Your task to perform on an android device: Open the map Image 0: 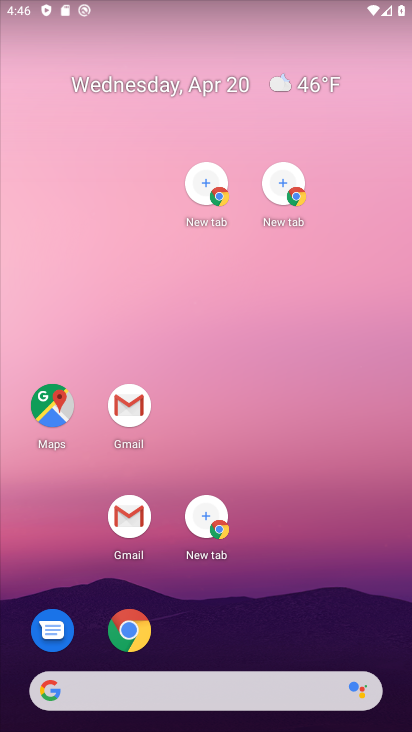
Step 0: drag from (216, 259) to (186, 176)
Your task to perform on an android device: Open the map Image 1: 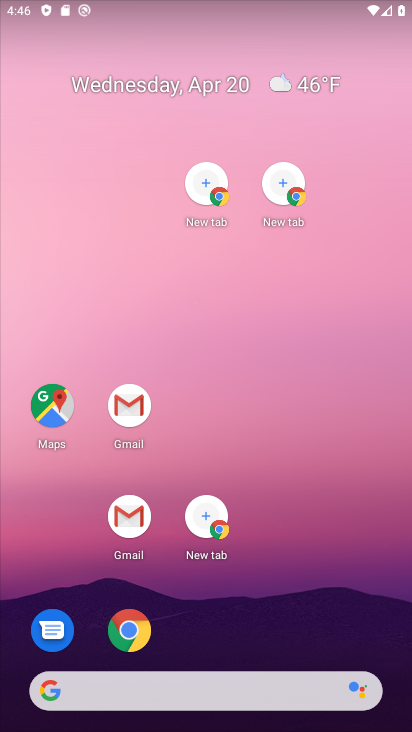
Step 1: drag from (298, 627) to (111, 54)
Your task to perform on an android device: Open the map Image 2: 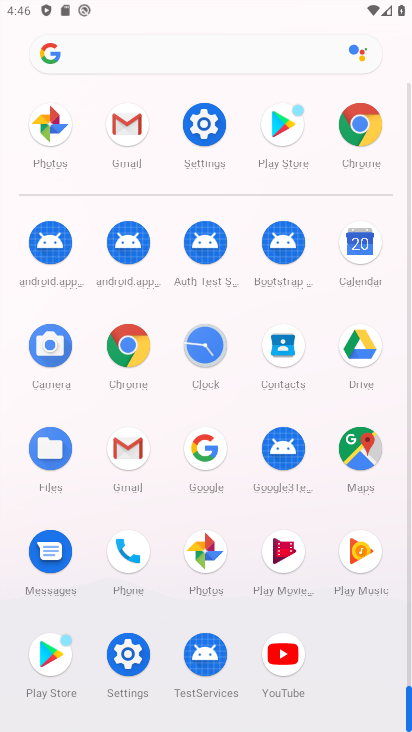
Step 2: click (359, 442)
Your task to perform on an android device: Open the map Image 3: 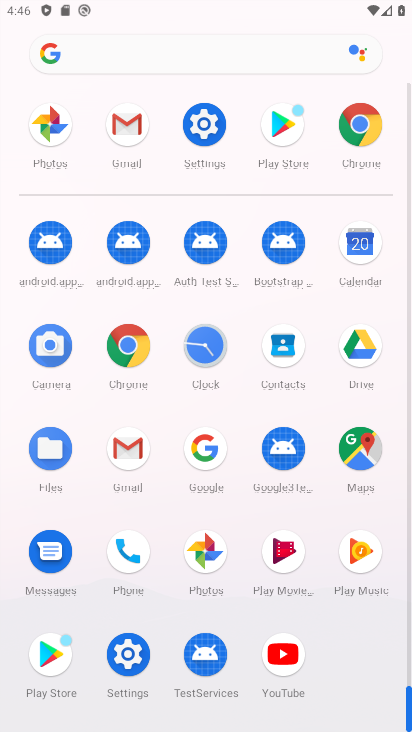
Step 3: click (359, 442)
Your task to perform on an android device: Open the map Image 4: 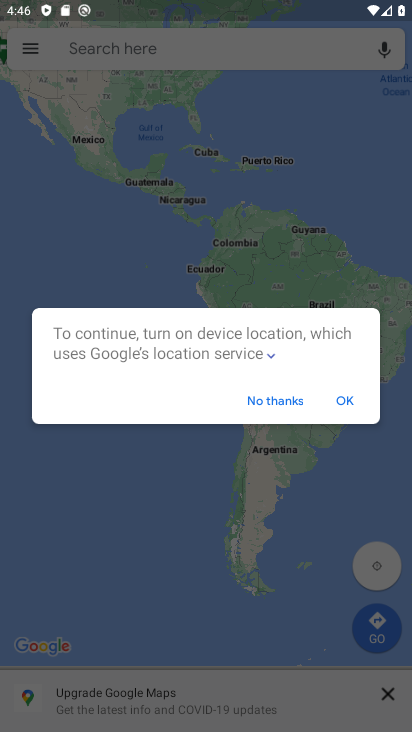
Step 4: task complete